Your task to perform on an android device: When is my next appointment? Image 0: 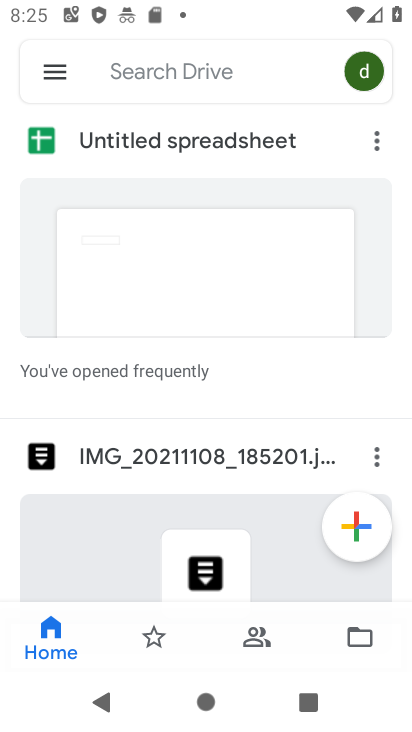
Step 0: press home button
Your task to perform on an android device: When is my next appointment? Image 1: 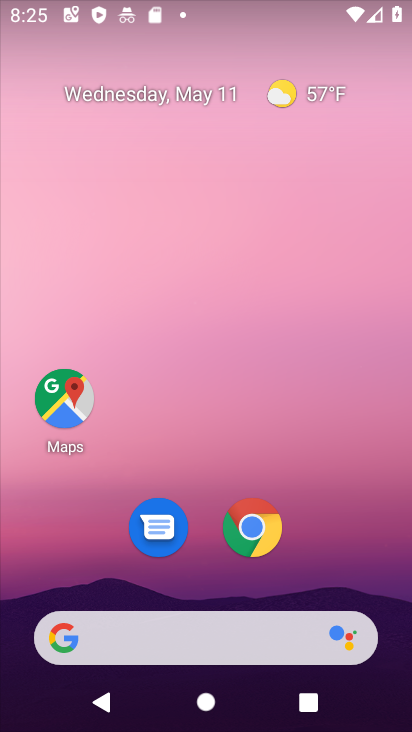
Step 1: drag from (316, 563) to (398, 22)
Your task to perform on an android device: When is my next appointment? Image 2: 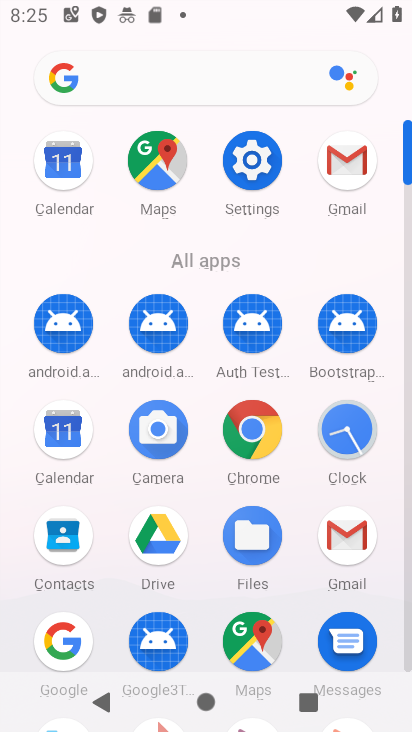
Step 2: click (64, 164)
Your task to perform on an android device: When is my next appointment? Image 3: 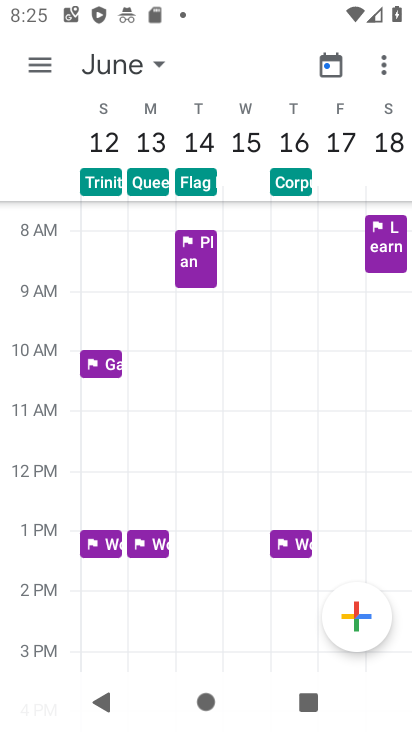
Step 3: click (153, 62)
Your task to perform on an android device: When is my next appointment? Image 4: 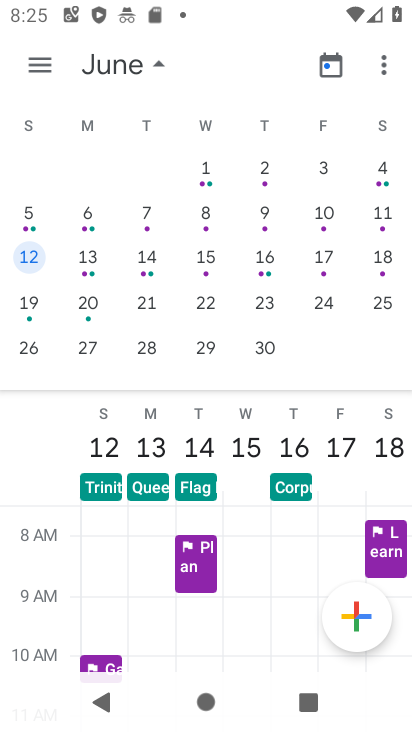
Step 4: drag from (50, 231) to (333, 83)
Your task to perform on an android device: When is my next appointment? Image 5: 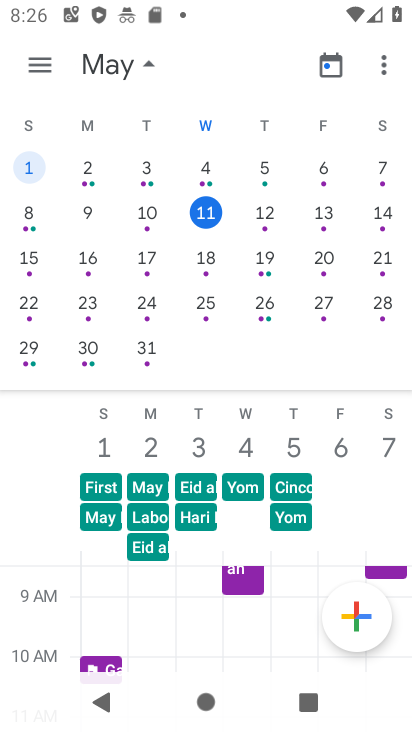
Step 5: click (31, 71)
Your task to perform on an android device: When is my next appointment? Image 6: 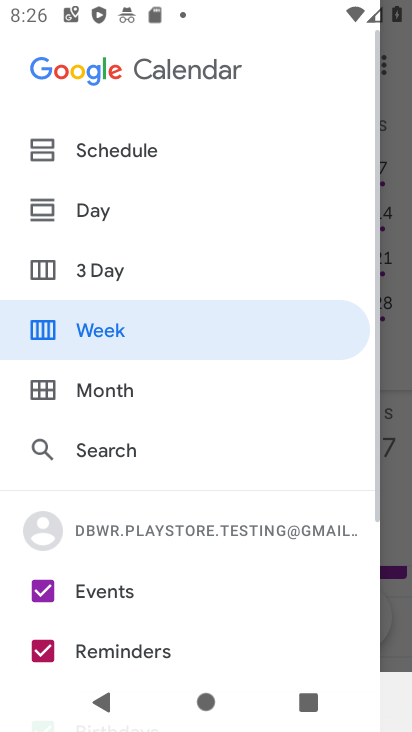
Step 6: click (96, 162)
Your task to perform on an android device: When is my next appointment? Image 7: 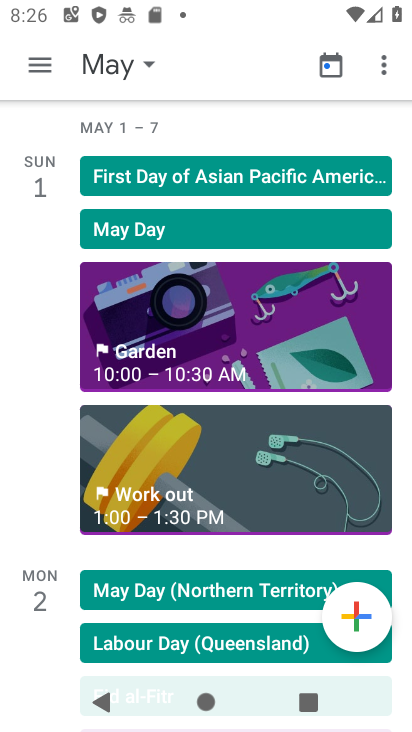
Step 7: click (148, 65)
Your task to perform on an android device: When is my next appointment? Image 8: 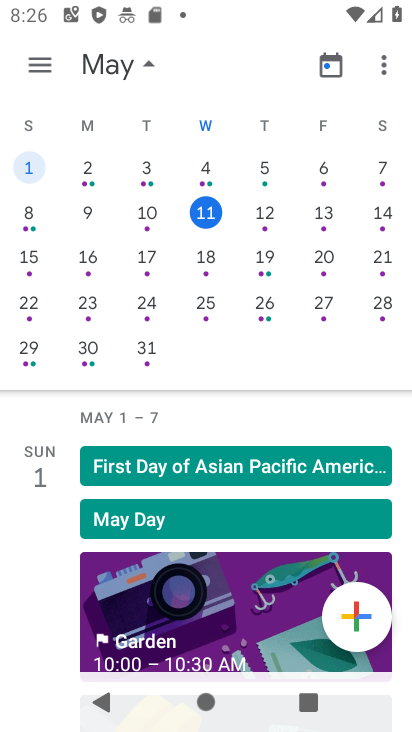
Step 8: click (207, 214)
Your task to perform on an android device: When is my next appointment? Image 9: 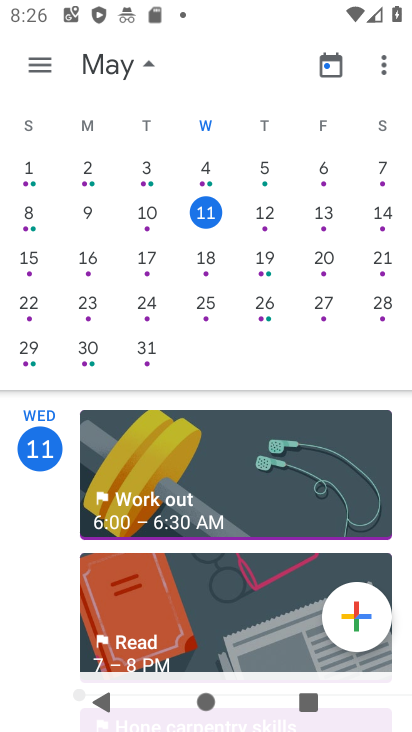
Step 9: drag from (208, 425) to (210, 137)
Your task to perform on an android device: When is my next appointment? Image 10: 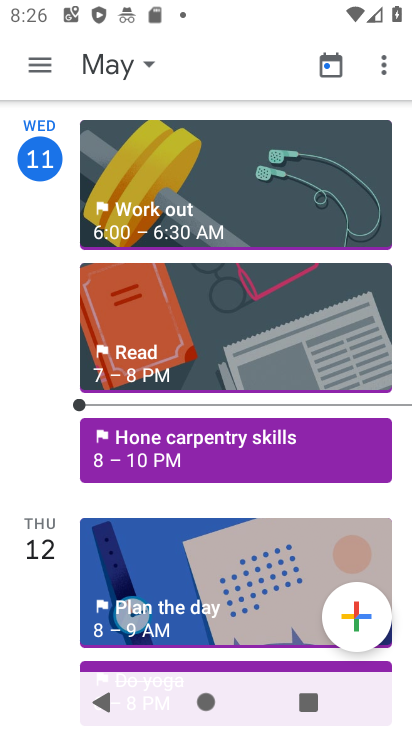
Step 10: drag from (205, 503) to (230, 147)
Your task to perform on an android device: When is my next appointment? Image 11: 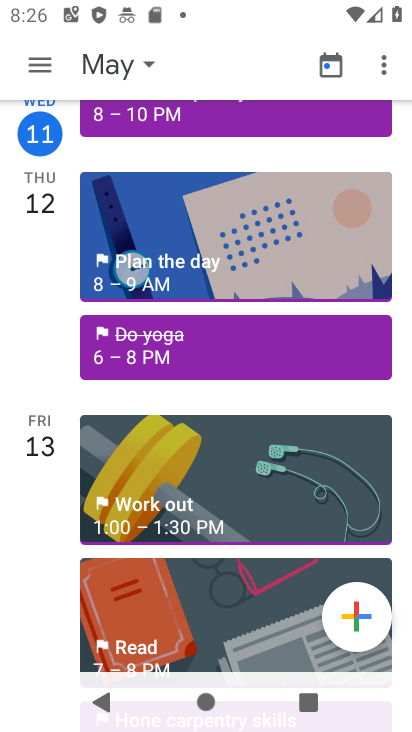
Step 11: click (199, 342)
Your task to perform on an android device: When is my next appointment? Image 12: 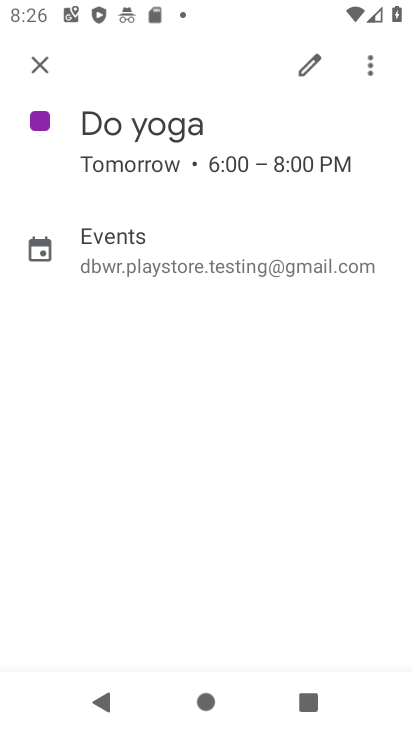
Step 12: task complete